Your task to perform on an android device: Is it going to rain tomorrow? Image 0: 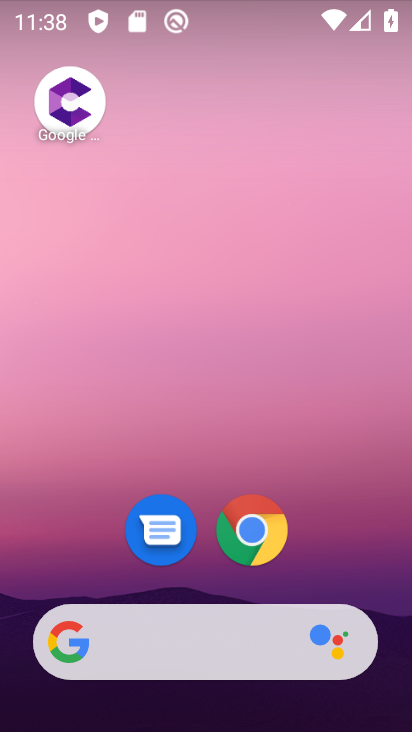
Step 0: drag from (363, 571) to (292, 179)
Your task to perform on an android device: Is it going to rain tomorrow? Image 1: 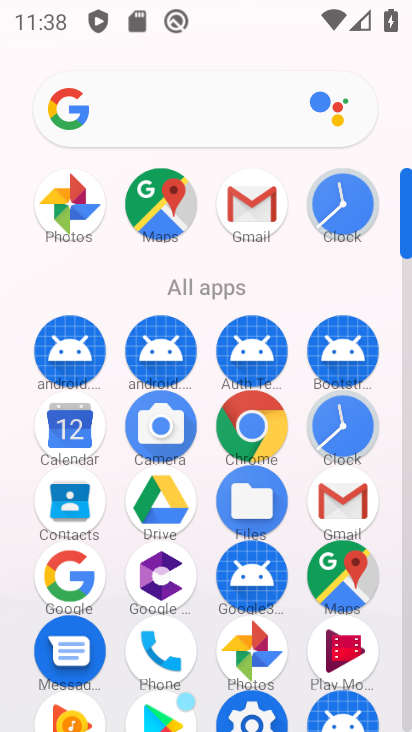
Step 1: drag from (201, 284) to (201, 653)
Your task to perform on an android device: Is it going to rain tomorrow? Image 2: 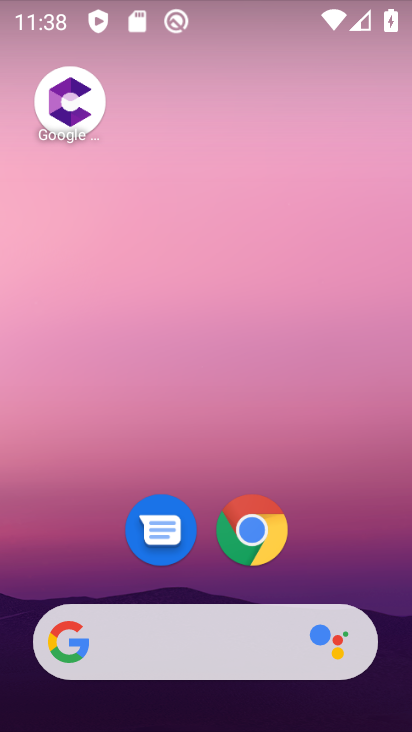
Step 2: drag from (73, 288) to (410, 224)
Your task to perform on an android device: Is it going to rain tomorrow? Image 3: 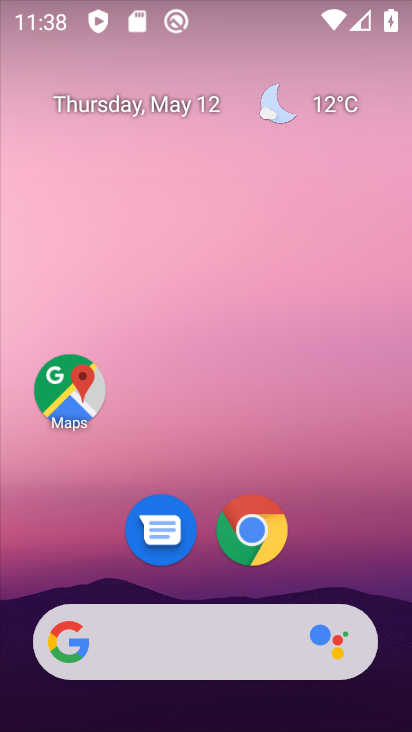
Step 3: click (328, 116)
Your task to perform on an android device: Is it going to rain tomorrow? Image 4: 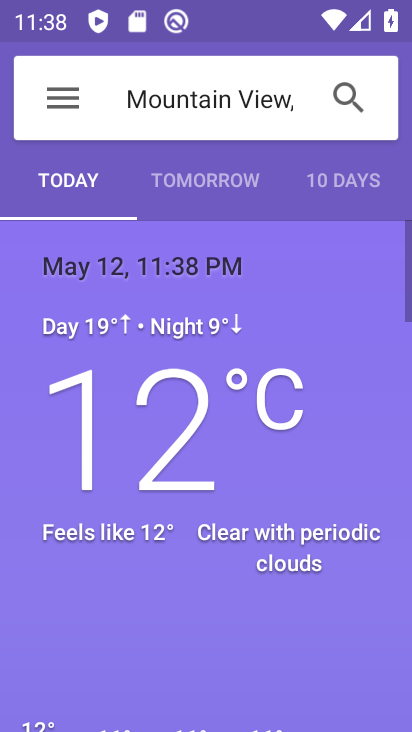
Step 4: click (216, 181)
Your task to perform on an android device: Is it going to rain tomorrow? Image 5: 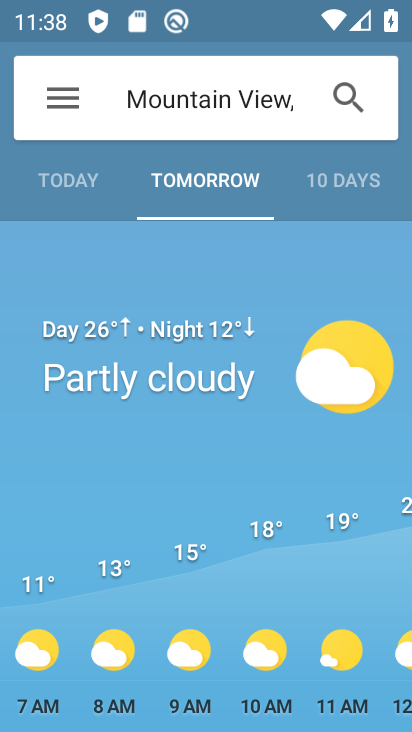
Step 5: task complete